Your task to perform on an android device: What's the weather? Image 0: 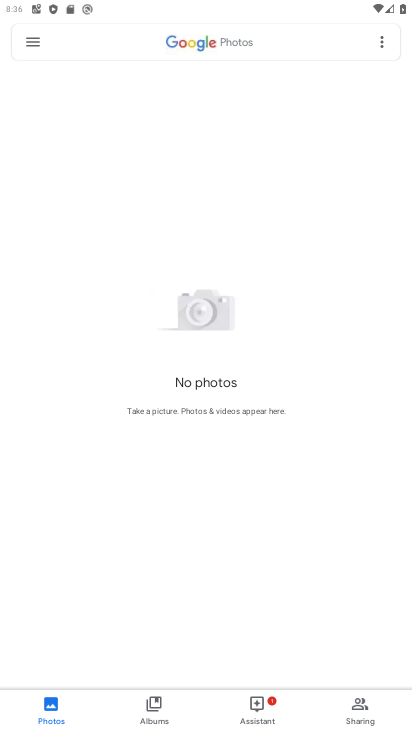
Step 0: click (286, 304)
Your task to perform on an android device: What's the weather? Image 1: 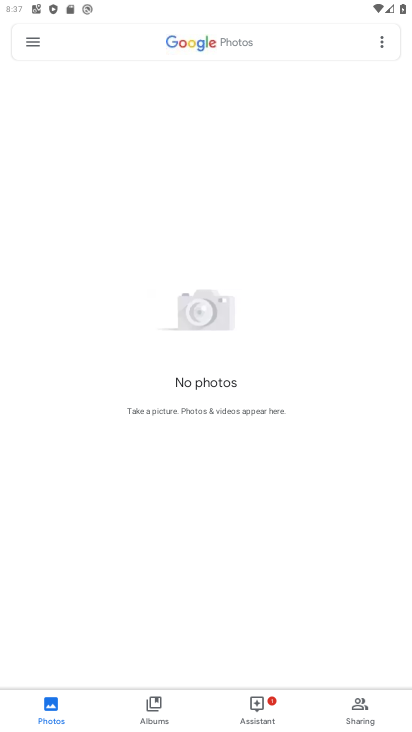
Step 1: press home button
Your task to perform on an android device: What's the weather? Image 2: 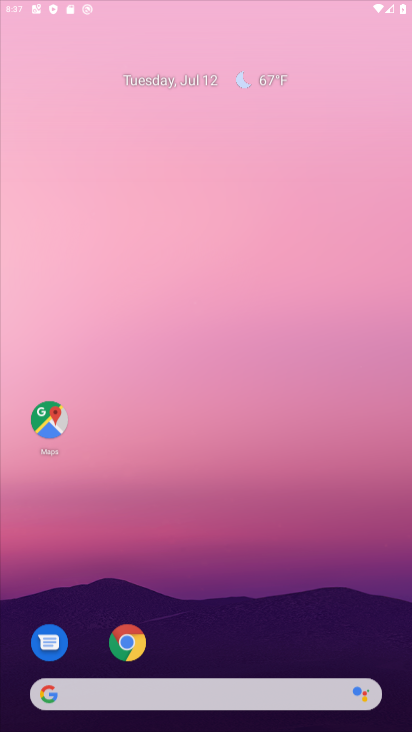
Step 2: drag from (197, 606) to (351, 53)
Your task to perform on an android device: What's the weather? Image 3: 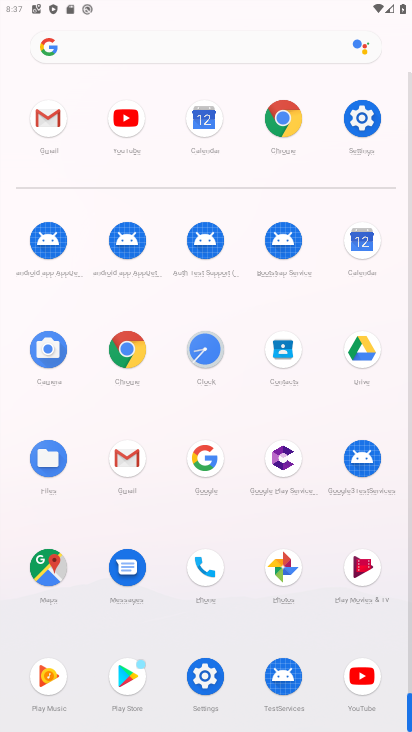
Step 3: click (213, 49)
Your task to perform on an android device: What's the weather? Image 4: 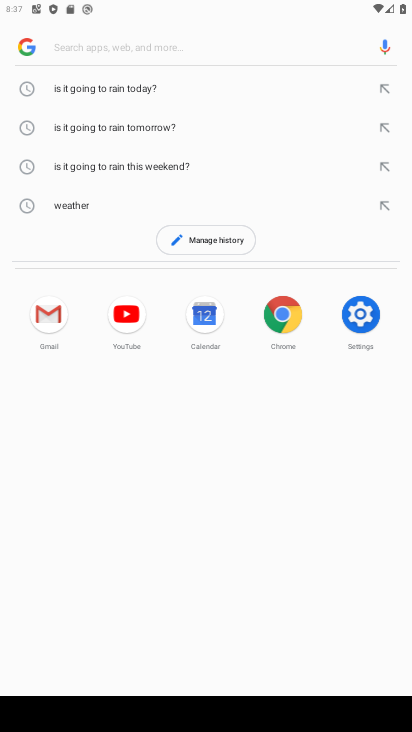
Step 4: click (65, 201)
Your task to perform on an android device: What's the weather? Image 5: 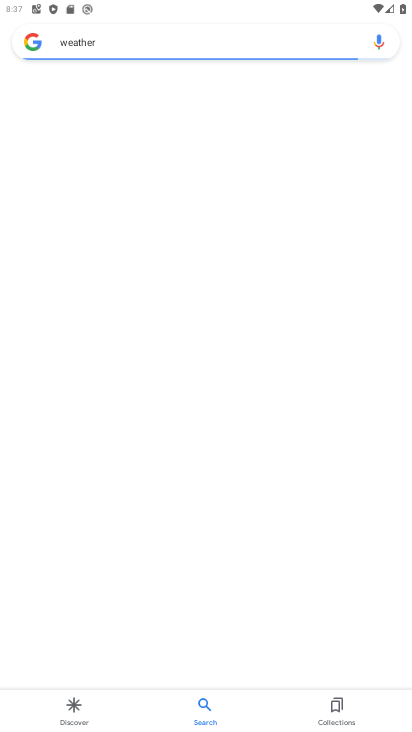
Step 5: task complete